Your task to perform on an android device: Go to Google Image 0: 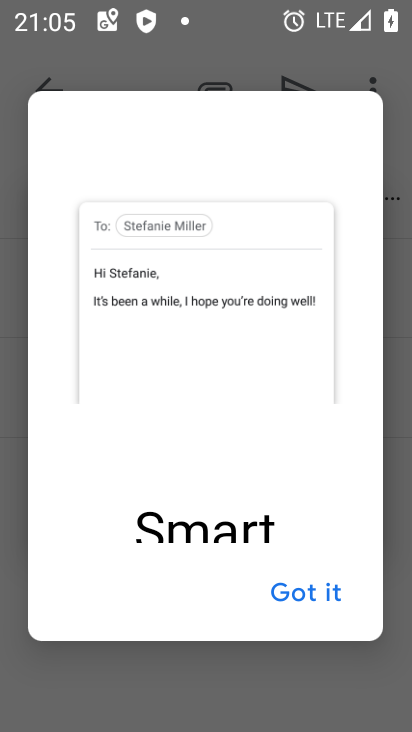
Step 0: click (314, 593)
Your task to perform on an android device: Go to Google Image 1: 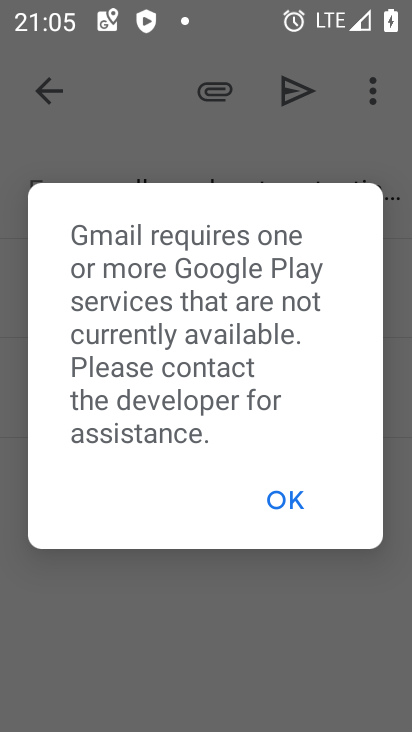
Step 1: click (287, 503)
Your task to perform on an android device: Go to Google Image 2: 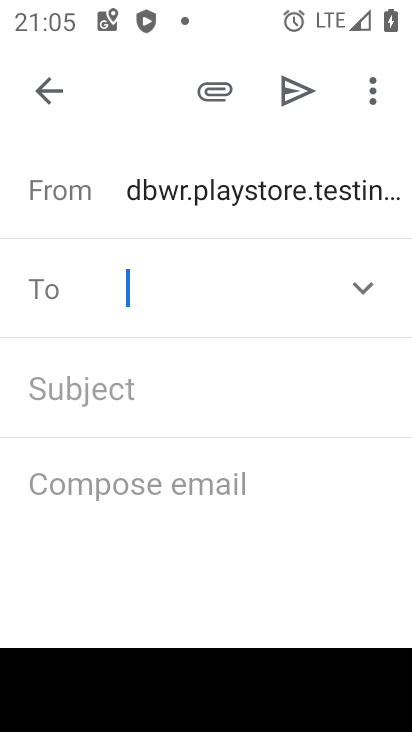
Step 2: press home button
Your task to perform on an android device: Go to Google Image 3: 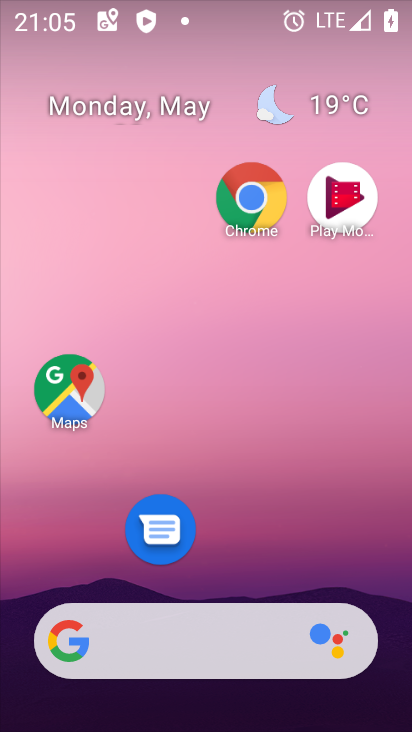
Step 3: drag from (269, 558) to (249, 117)
Your task to perform on an android device: Go to Google Image 4: 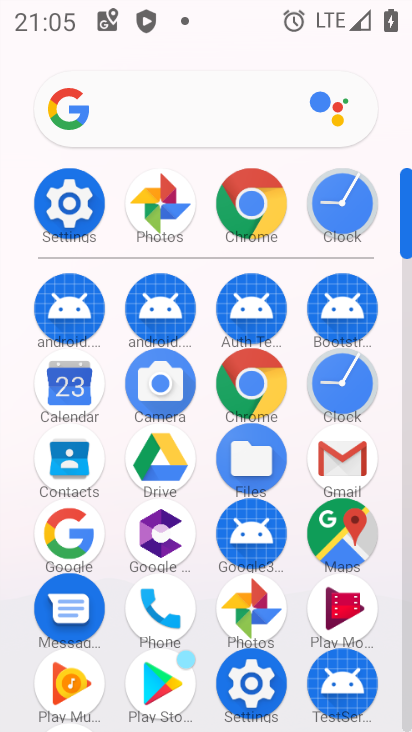
Step 4: click (67, 540)
Your task to perform on an android device: Go to Google Image 5: 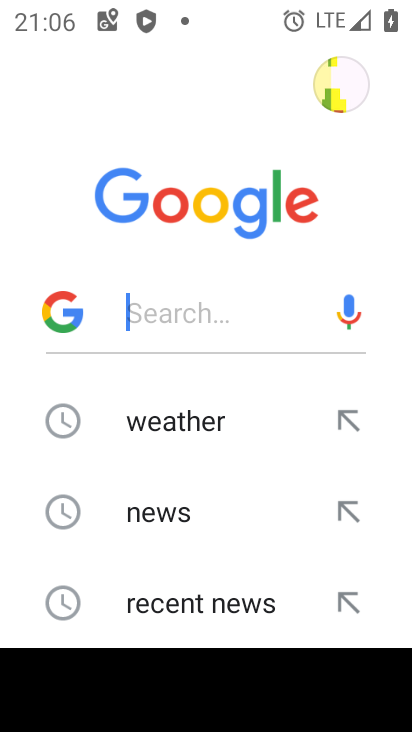
Step 5: task complete